Your task to perform on an android device: open the mobile data screen to see how much data has been used Image 0: 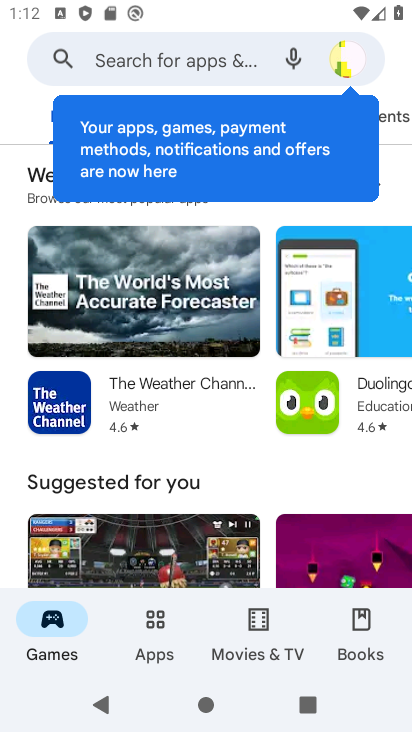
Step 0: click (324, 77)
Your task to perform on an android device: open the mobile data screen to see how much data has been used Image 1: 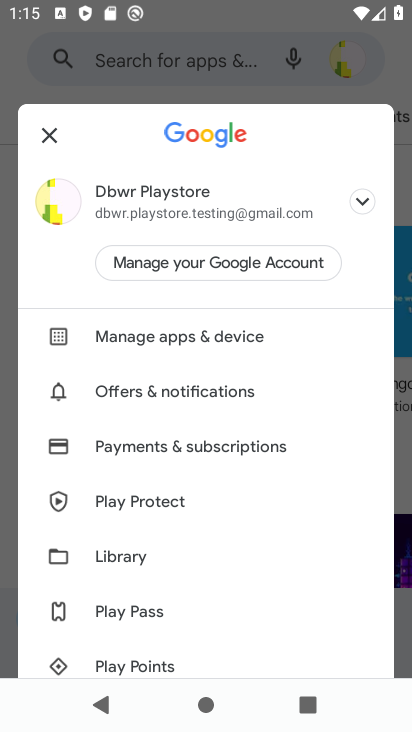
Step 1: press home button
Your task to perform on an android device: open the mobile data screen to see how much data has been used Image 2: 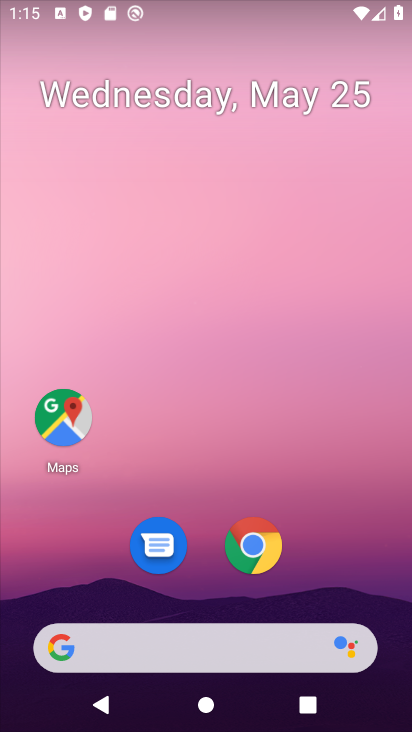
Step 2: click (380, 366)
Your task to perform on an android device: open the mobile data screen to see how much data has been used Image 3: 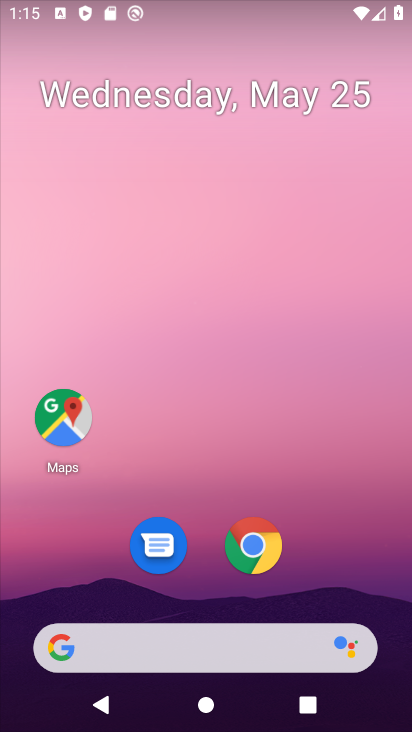
Step 3: click (85, 695)
Your task to perform on an android device: open the mobile data screen to see how much data has been used Image 4: 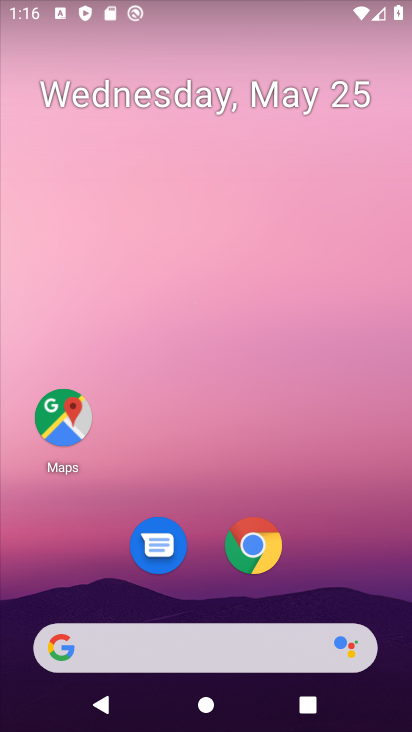
Step 4: click (289, 561)
Your task to perform on an android device: open the mobile data screen to see how much data has been used Image 5: 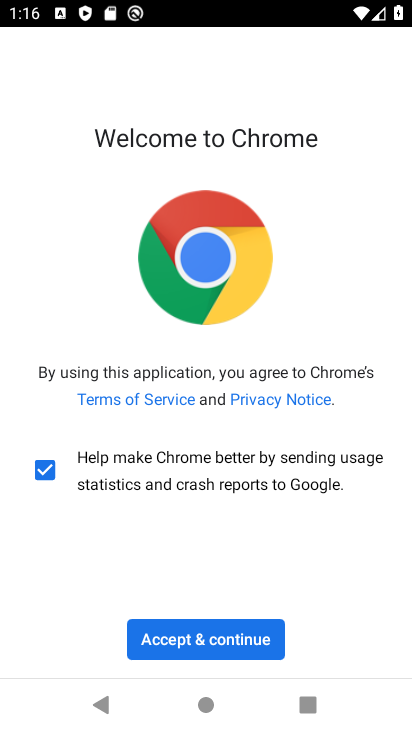
Step 5: click (175, 646)
Your task to perform on an android device: open the mobile data screen to see how much data has been used Image 6: 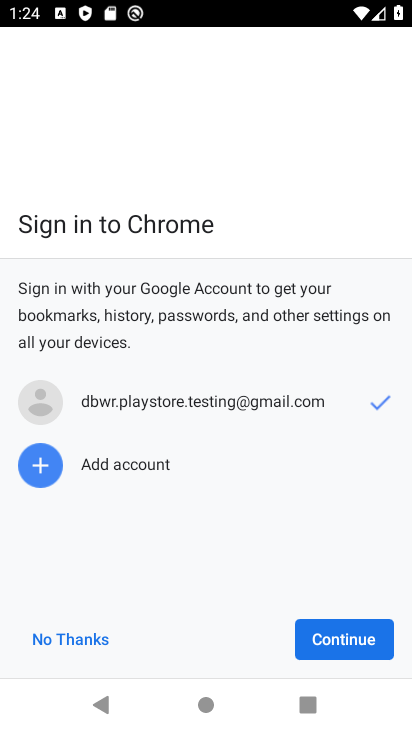
Step 6: click (317, 651)
Your task to perform on an android device: open the mobile data screen to see how much data has been used Image 7: 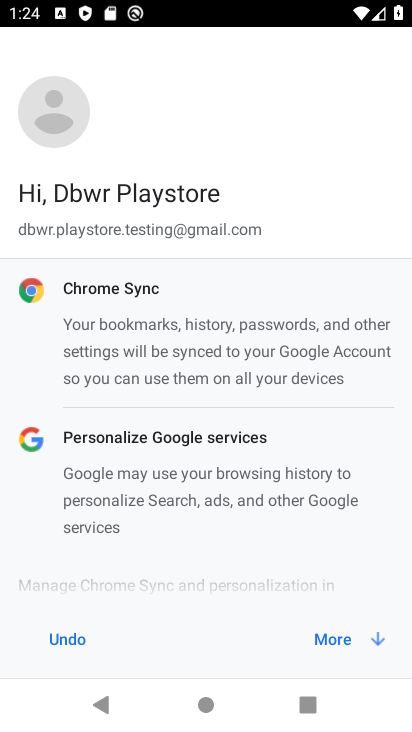
Step 7: task complete